Your task to perform on an android device: turn on airplane mode Image 0: 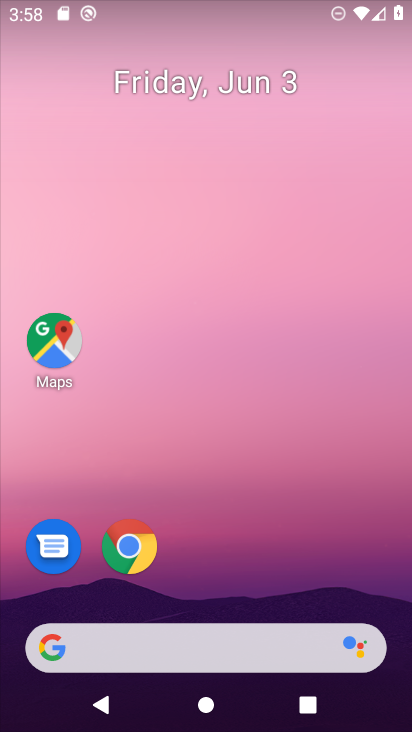
Step 0: drag from (261, 525) to (288, 0)
Your task to perform on an android device: turn on airplane mode Image 1: 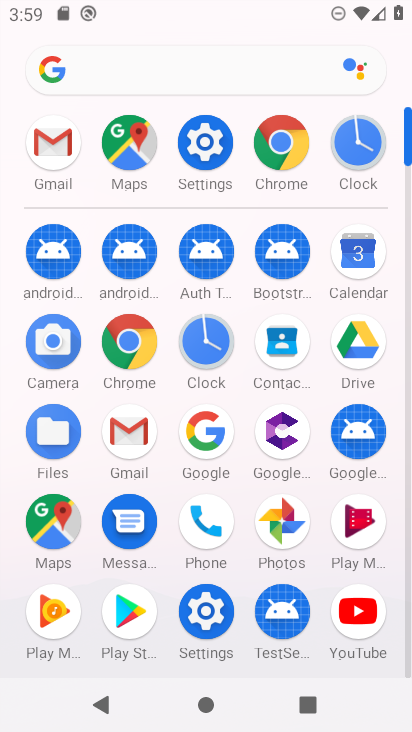
Step 1: click (198, 141)
Your task to perform on an android device: turn on airplane mode Image 2: 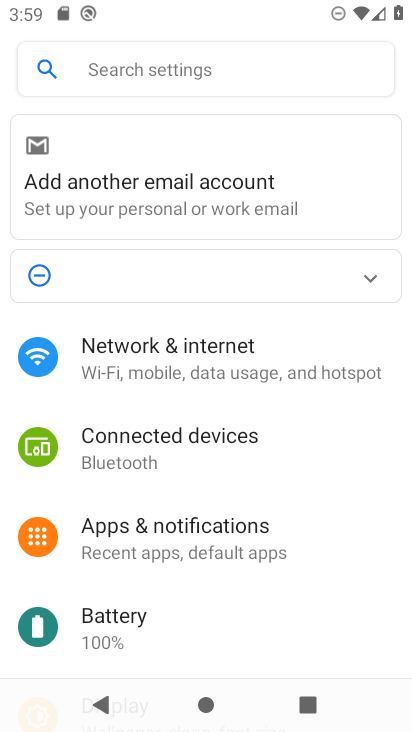
Step 2: click (183, 357)
Your task to perform on an android device: turn on airplane mode Image 3: 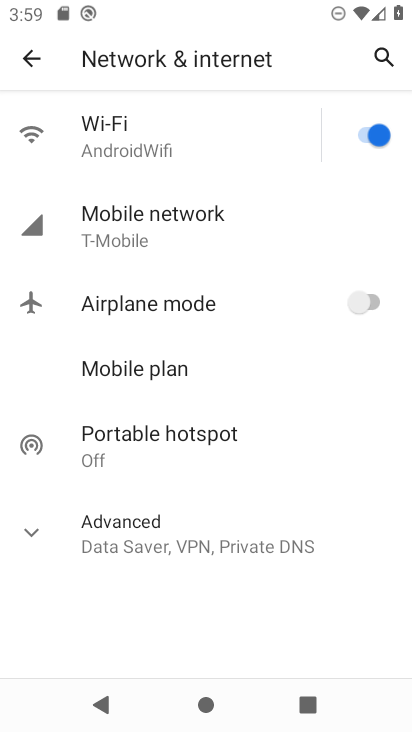
Step 3: click (365, 295)
Your task to perform on an android device: turn on airplane mode Image 4: 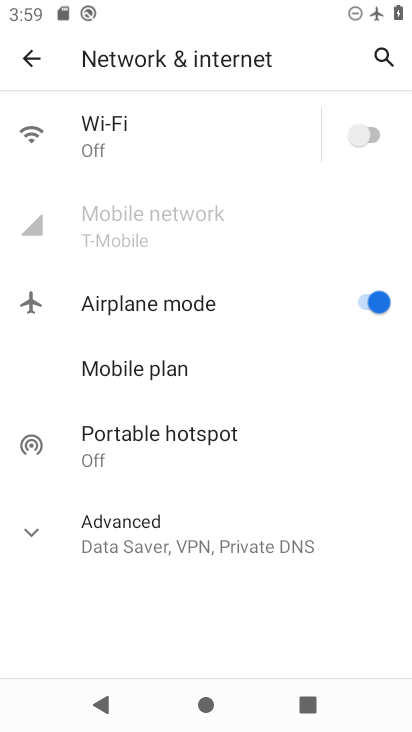
Step 4: task complete